Your task to perform on an android device: open sync settings in chrome Image 0: 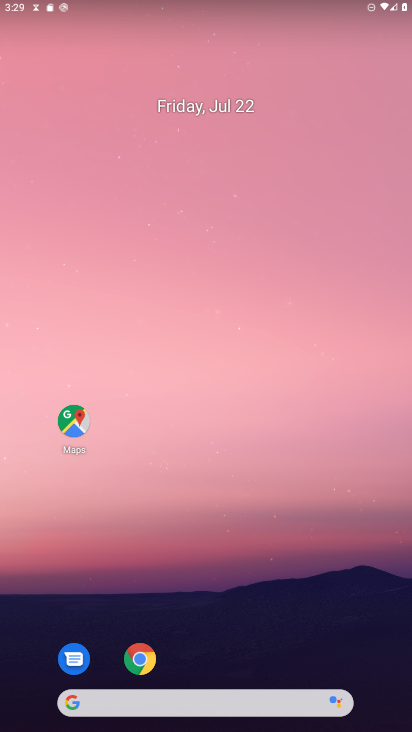
Step 0: drag from (190, 589) to (187, 193)
Your task to perform on an android device: open sync settings in chrome Image 1: 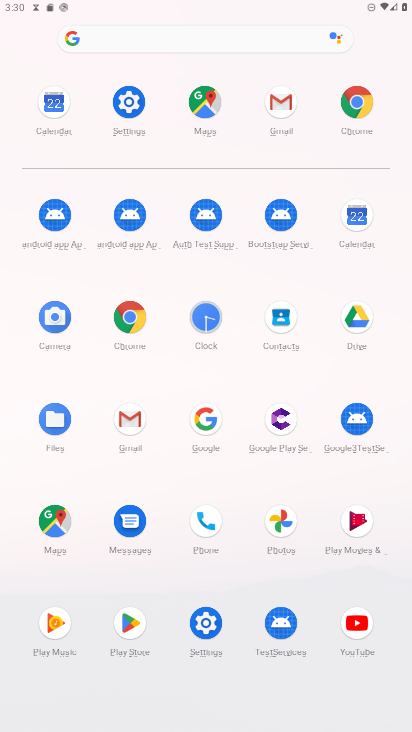
Step 1: click (356, 110)
Your task to perform on an android device: open sync settings in chrome Image 2: 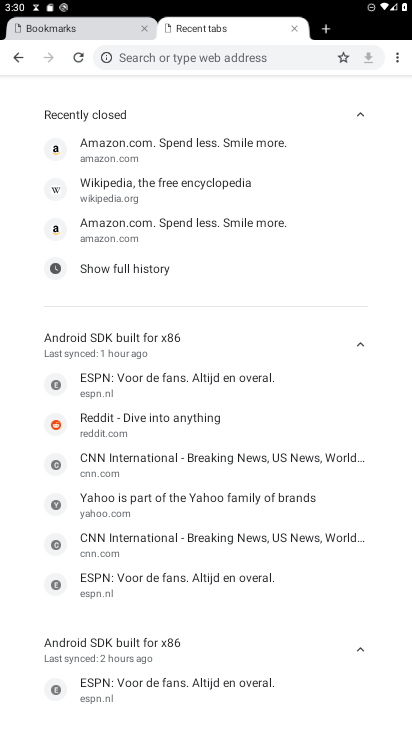
Step 2: drag from (395, 63) to (293, 262)
Your task to perform on an android device: open sync settings in chrome Image 3: 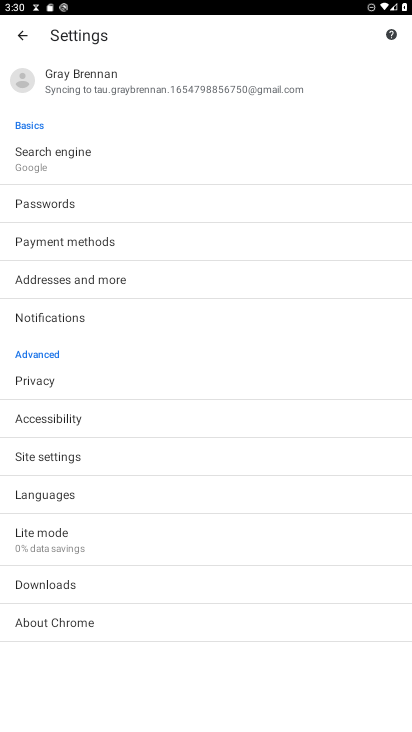
Step 3: click (80, 457)
Your task to perform on an android device: open sync settings in chrome Image 4: 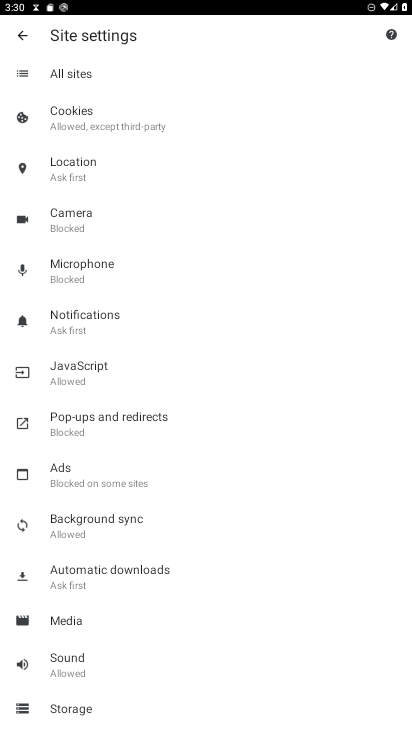
Step 4: click (121, 525)
Your task to perform on an android device: open sync settings in chrome Image 5: 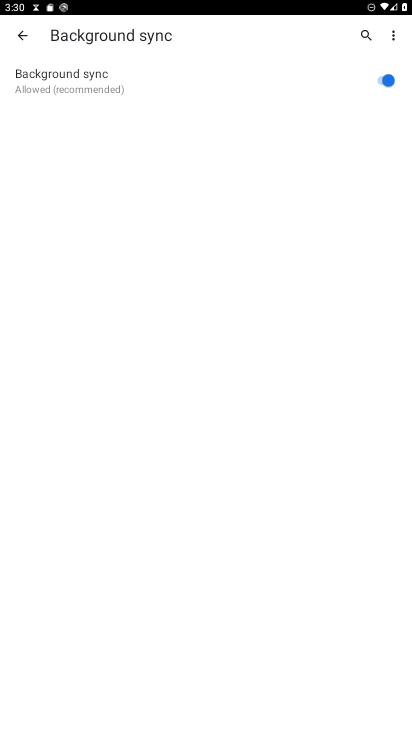
Step 5: task complete